Your task to perform on an android device: turn on translation in the chrome app Image 0: 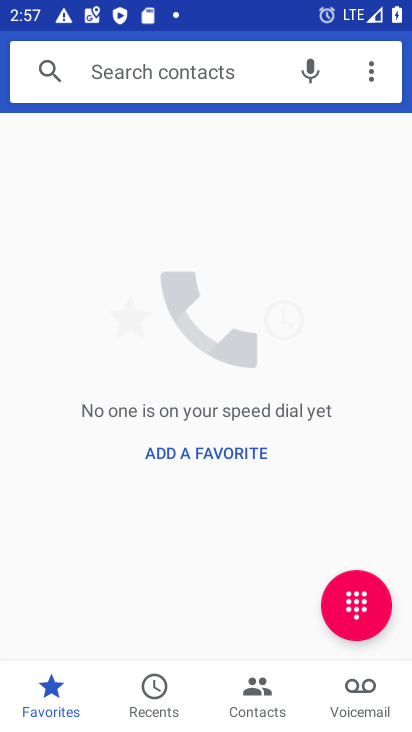
Step 0: press home button
Your task to perform on an android device: turn on translation in the chrome app Image 1: 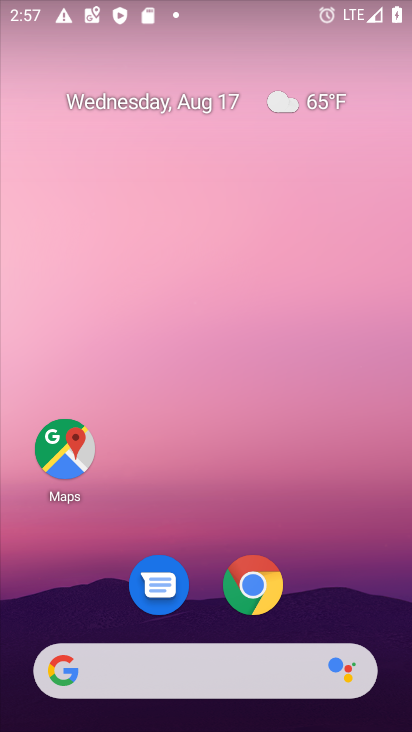
Step 1: click (255, 581)
Your task to perform on an android device: turn on translation in the chrome app Image 2: 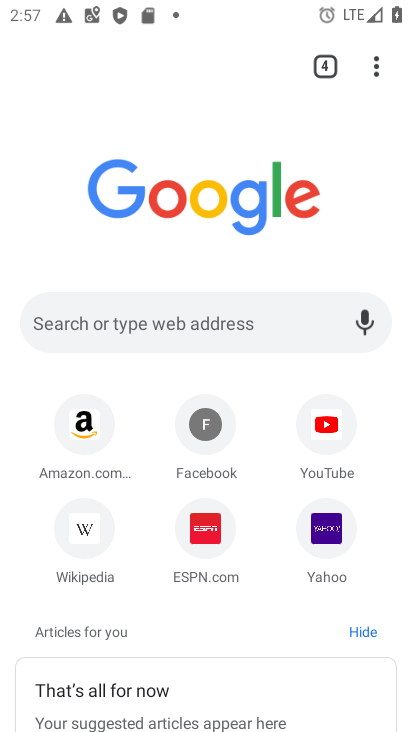
Step 2: click (376, 72)
Your task to perform on an android device: turn on translation in the chrome app Image 3: 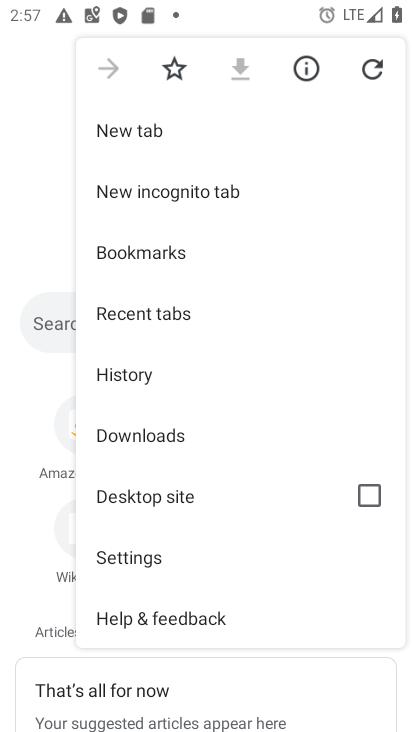
Step 3: click (147, 554)
Your task to perform on an android device: turn on translation in the chrome app Image 4: 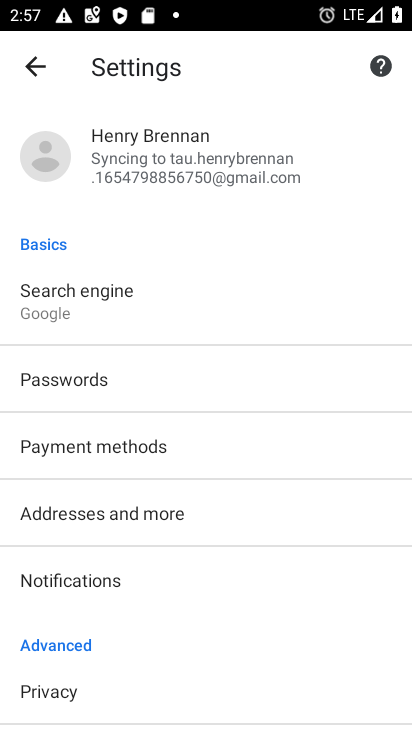
Step 4: drag from (241, 630) to (321, 111)
Your task to perform on an android device: turn on translation in the chrome app Image 5: 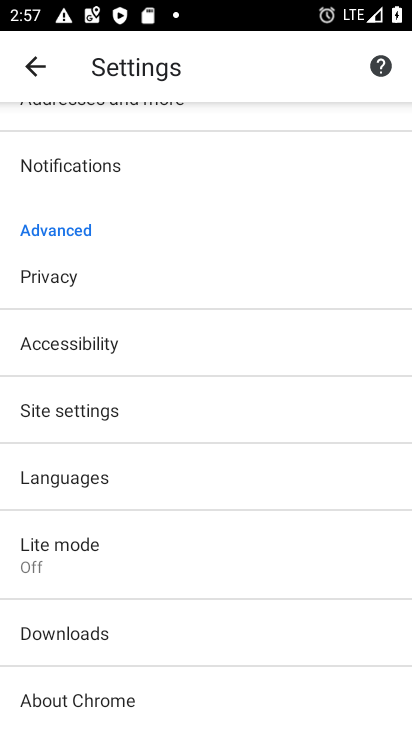
Step 5: click (179, 467)
Your task to perform on an android device: turn on translation in the chrome app Image 6: 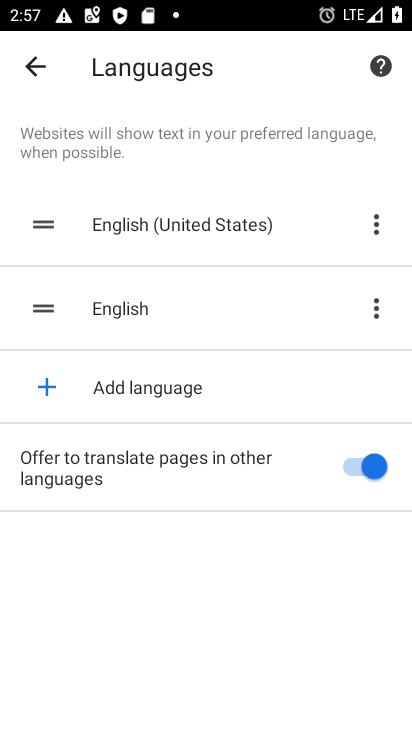
Step 6: task complete